Your task to perform on an android device: Open sound settings Image 0: 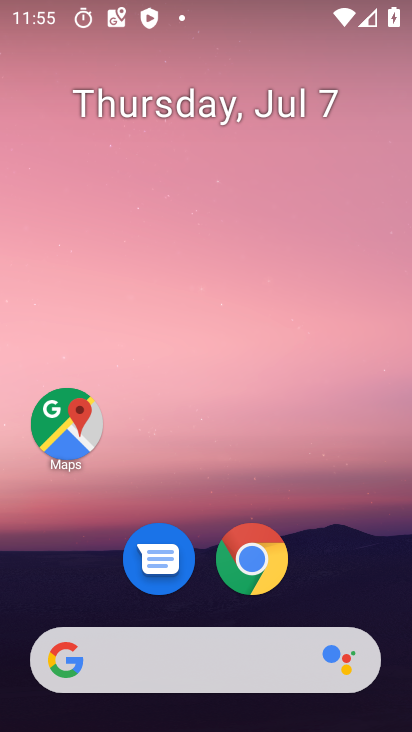
Step 0: drag from (380, 576) to (365, 153)
Your task to perform on an android device: Open sound settings Image 1: 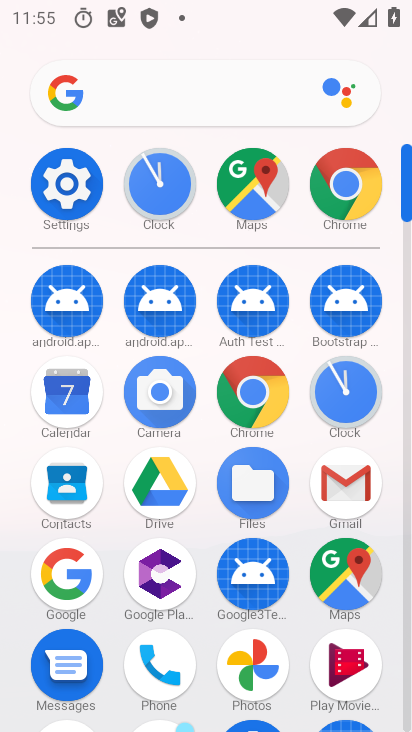
Step 1: click (61, 197)
Your task to perform on an android device: Open sound settings Image 2: 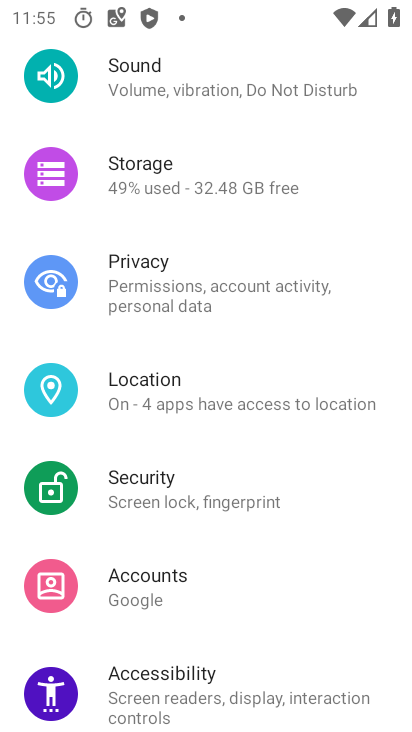
Step 2: drag from (362, 551) to (367, 431)
Your task to perform on an android device: Open sound settings Image 3: 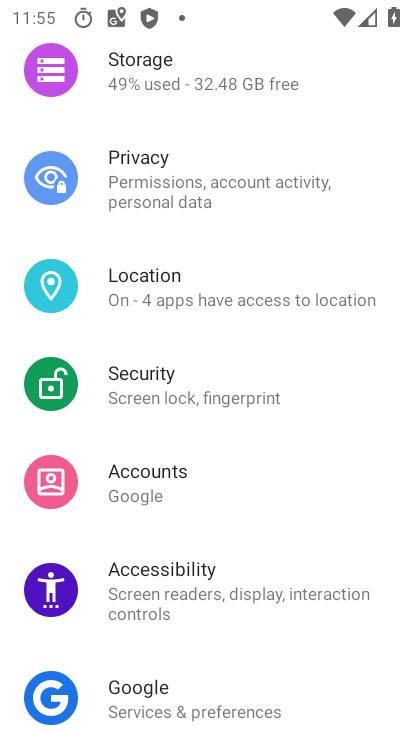
Step 3: drag from (365, 663) to (373, 515)
Your task to perform on an android device: Open sound settings Image 4: 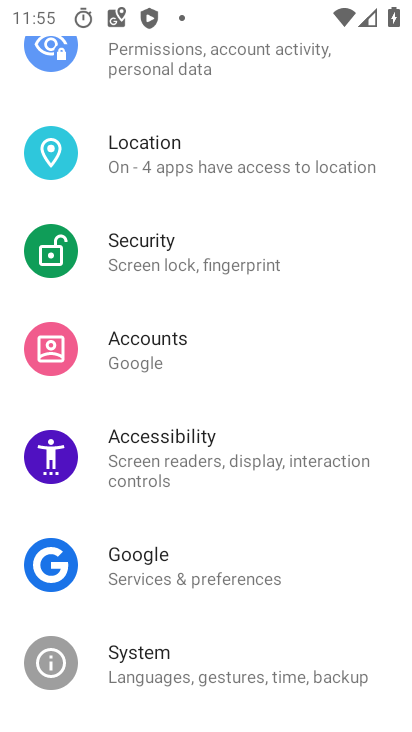
Step 4: drag from (357, 576) to (374, 458)
Your task to perform on an android device: Open sound settings Image 5: 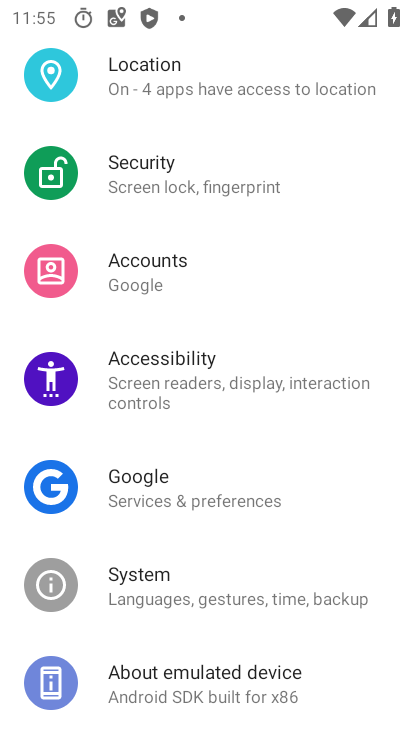
Step 5: drag from (348, 637) to (346, 477)
Your task to perform on an android device: Open sound settings Image 6: 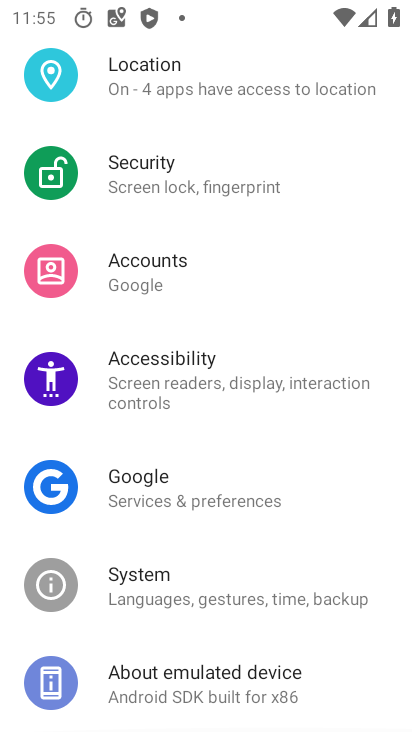
Step 6: drag from (345, 324) to (336, 411)
Your task to perform on an android device: Open sound settings Image 7: 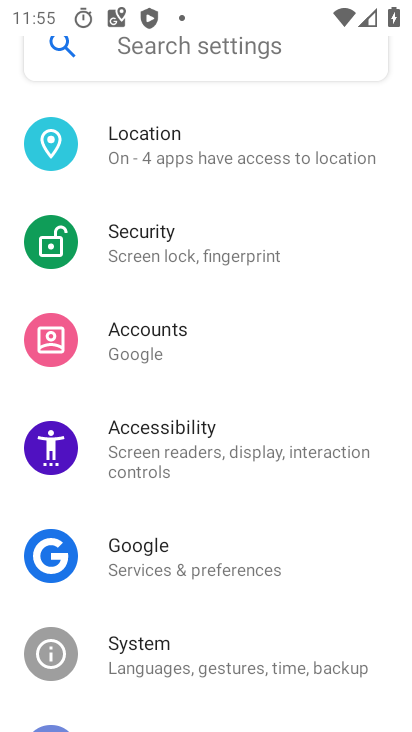
Step 7: drag from (343, 315) to (335, 401)
Your task to perform on an android device: Open sound settings Image 8: 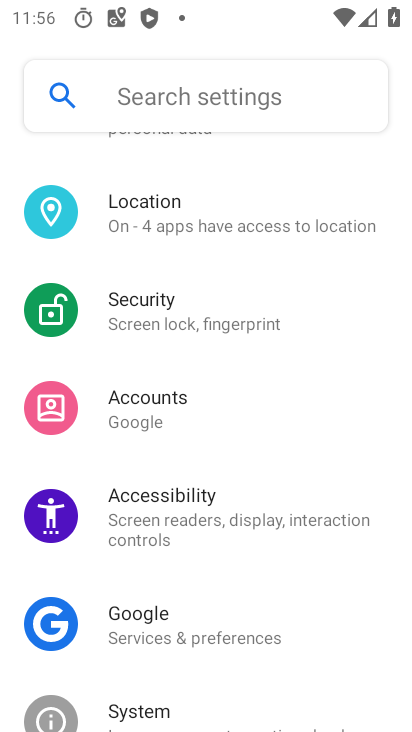
Step 8: drag from (358, 306) to (356, 448)
Your task to perform on an android device: Open sound settings Image 9: 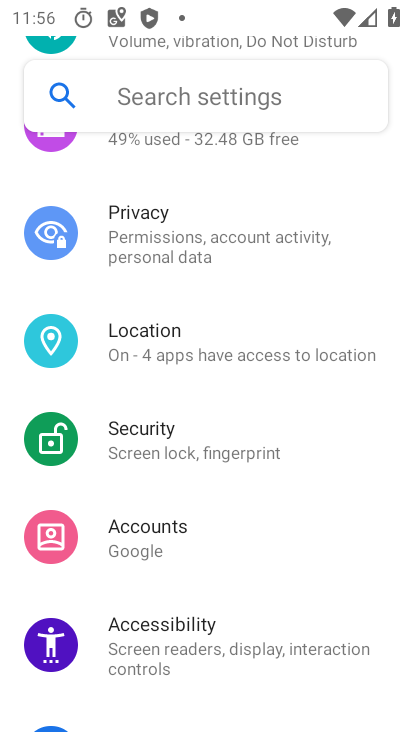
Step 9: drag from (356, 281) to (356, 418)
Your task to perform on an android device: Open sound settings Image 10: 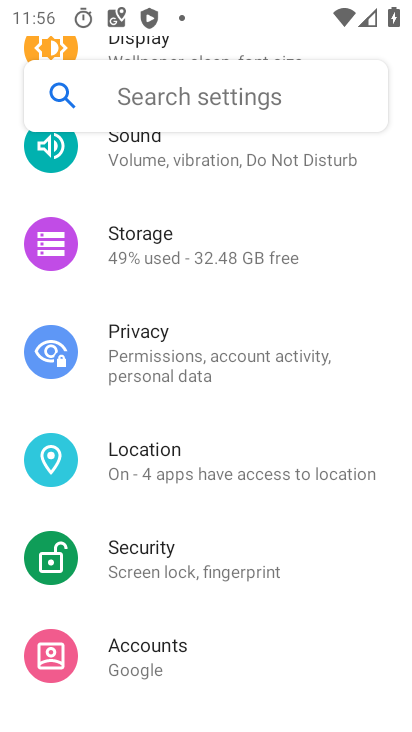
Step 10: drag from (358, 304) to (358, 457)
Your task to perform on an android device: Open sound settings Image 11: 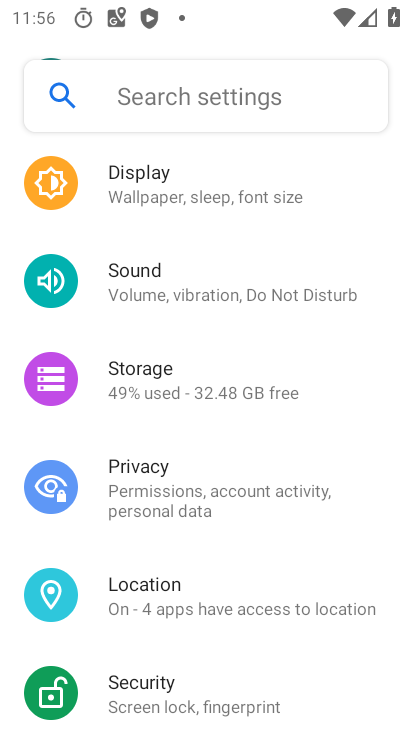
Step 11: drag from (361, 267) to (357, 371)
Your task to perform on an android device: Open sound settings Image 12: 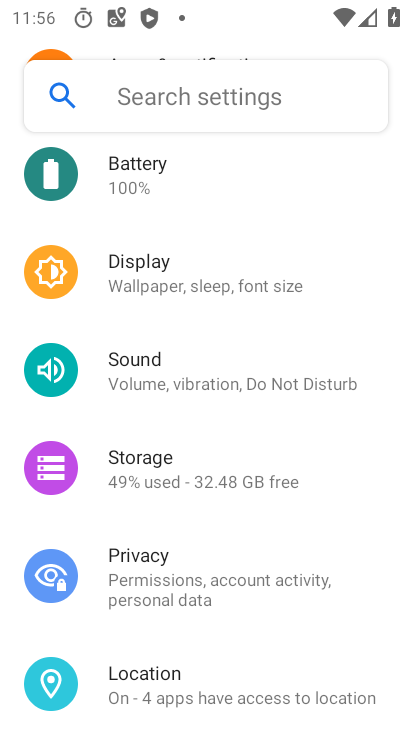
Step 12: drag from (355, 269) to (358, 408)
Your task to perform on an android device: Open sound settings Image 13: 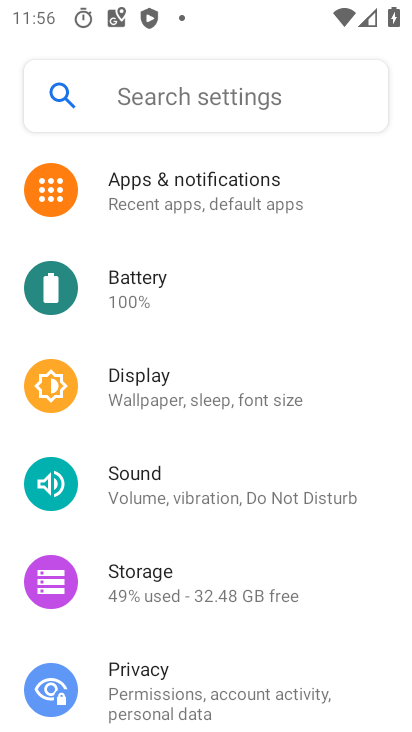
Step 13: drag from (358, 295) to (355, 377)
Your task to perform on an android device: Open sound settings Image 14: 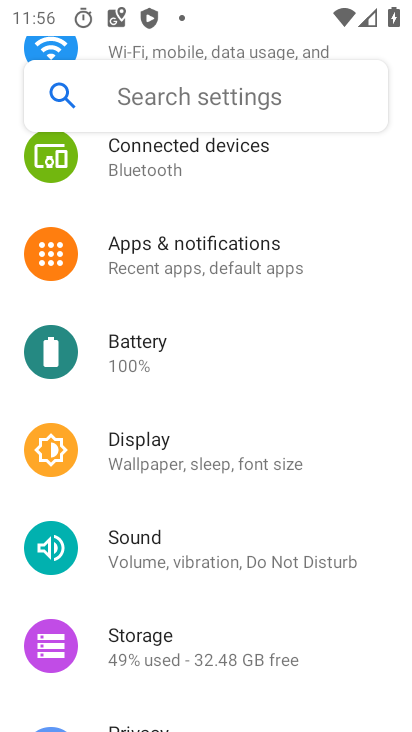
Step 14: click (325, 555)
Your task to perform on an android device: Open sound settings Image 15: 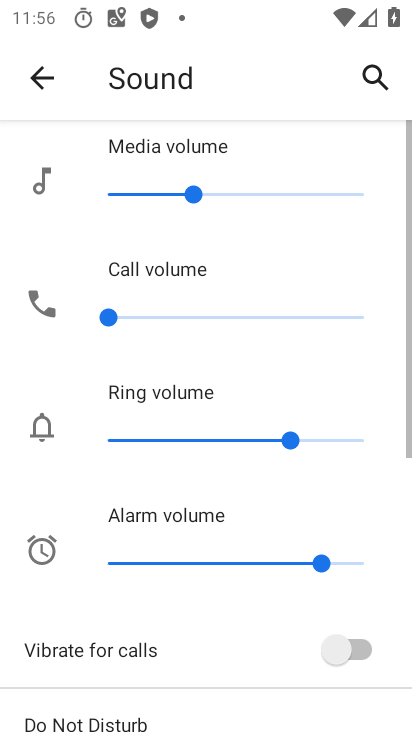
Step 15: task complete